Your task to perform on an android device: turn vacation reply on in the gmail app Image 0: 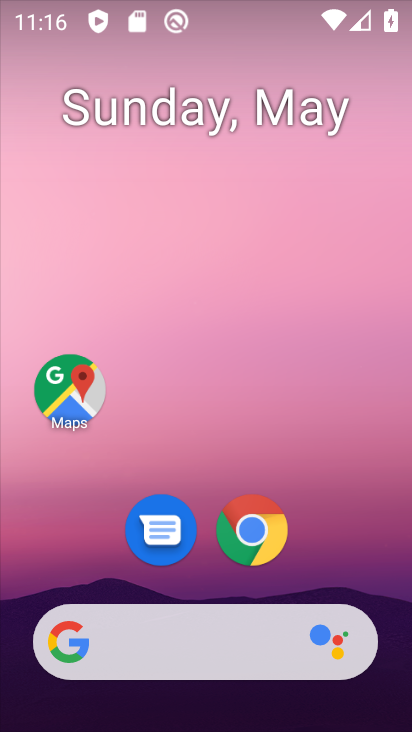
Step 0: drag from (287, 409) to (276, 23)
Your task to perform on an android device: turn vacation reply on in the gmail app Image 1: 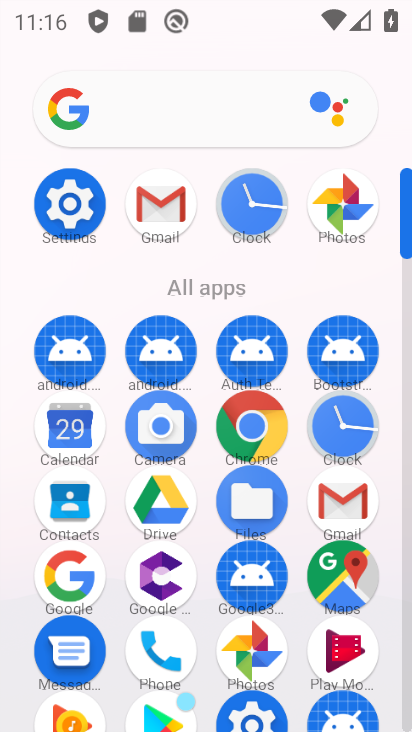
Step 1: click (165, 214)
Your task to perform on an android device: turn vacation reply on in the gmail app Image 2: 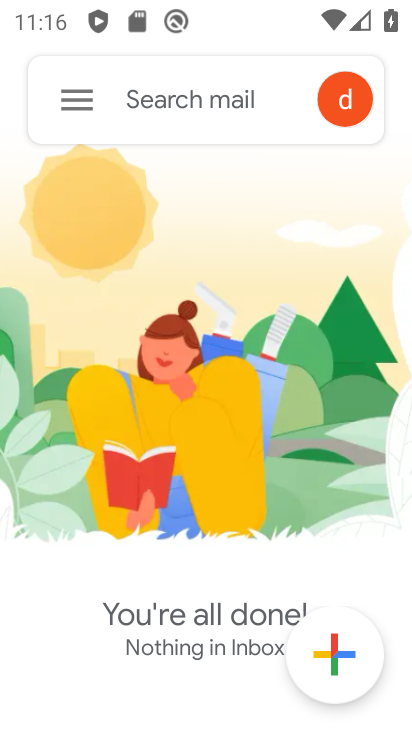
Step 2: click (57, 101)
Your task to perform on an android device: turn vacation reply on in the gmail app Image 3: 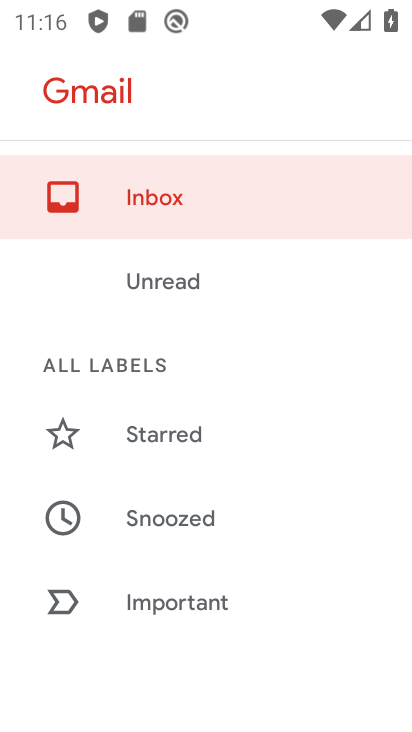
Step 3: drag from (143, 610) to (272, 1)
Your task to perform on an android device: turn vacation reply on in the gmail app Image 4: 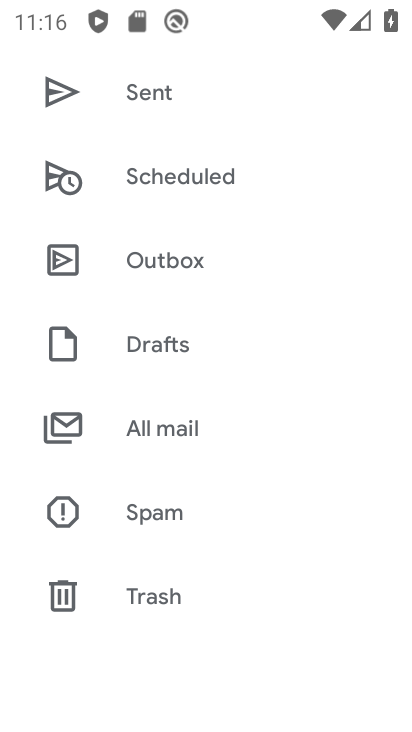
Step 4: drag from (173, 552) to (252, 13)
Your task to perform on an android device: turn vacation reply on in the gmail app Image 5: 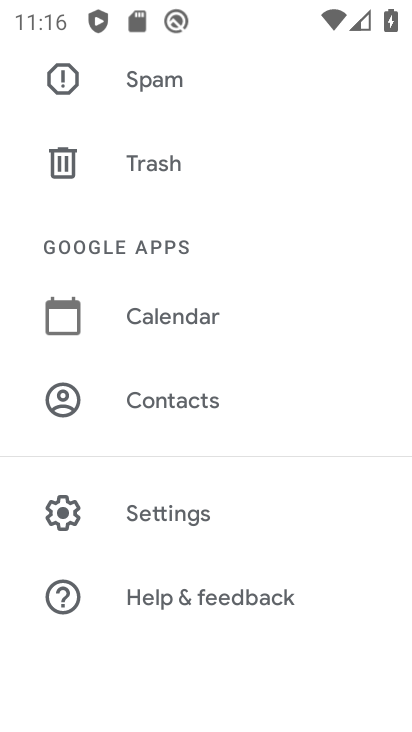
Step 5: click (166, 516)
Your task to perform on an android device: turn vacation reply on in the gmail app Image 6: 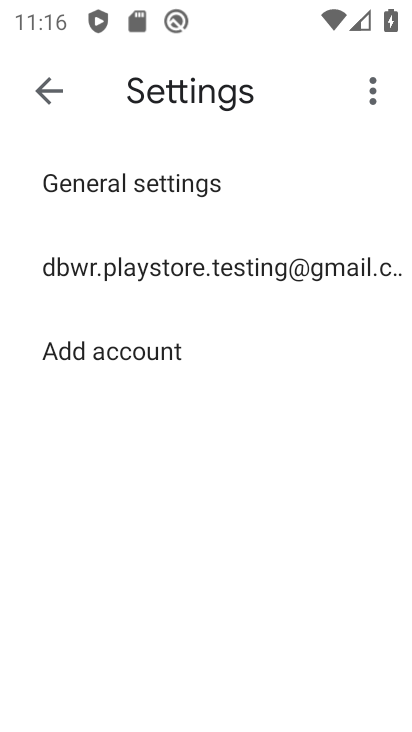
Step 6: click (145, 263)
Your task to perform on an android device: turn vacation reply on in the gmail app Image 7: 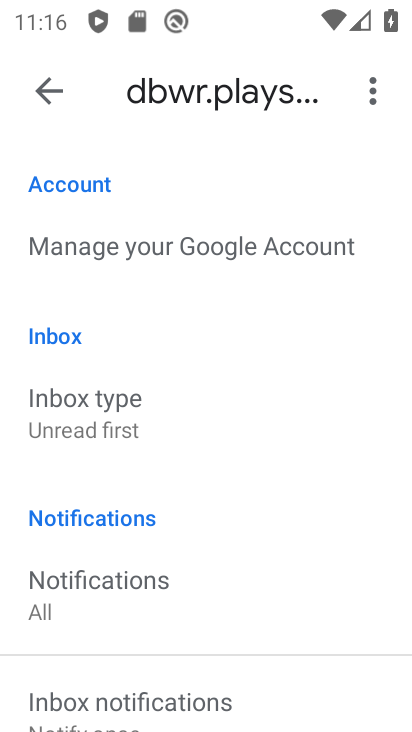
Step 7: drag from (155, 674) to (294, 100)
Your task to perform on an android device: turn vacation reply on in the gmail app Image 8: 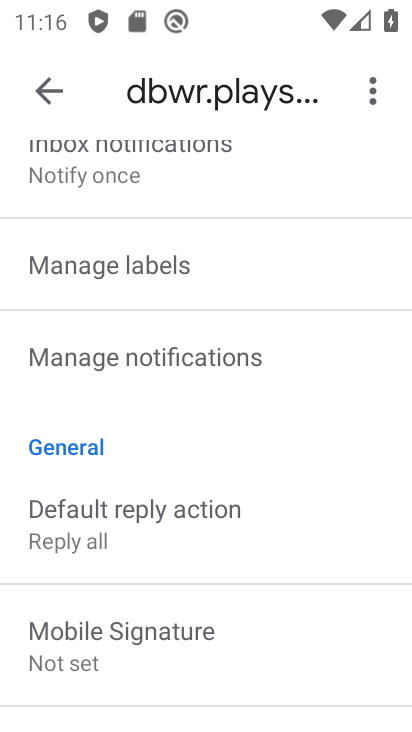
Step 8: drag from (198, 556) to (258, 141)
Your task to perform on an android device: turn vacation reply on in the gmail app Image 9: 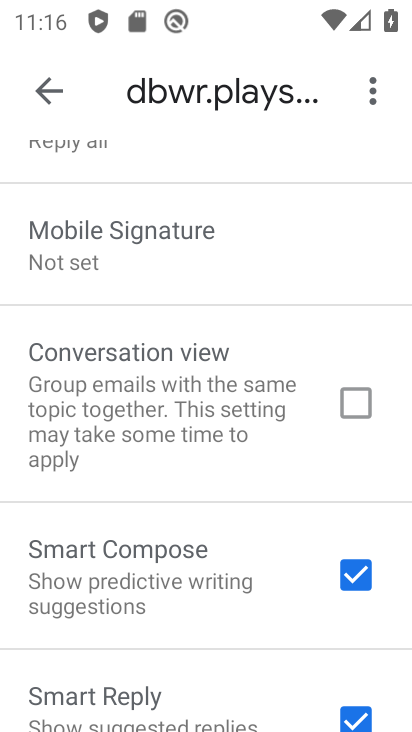
Step 9: drag from (184, 621) to (241, 221)
Your task to perform on an android device: turn vacation reply on in the gmail app Image 10: 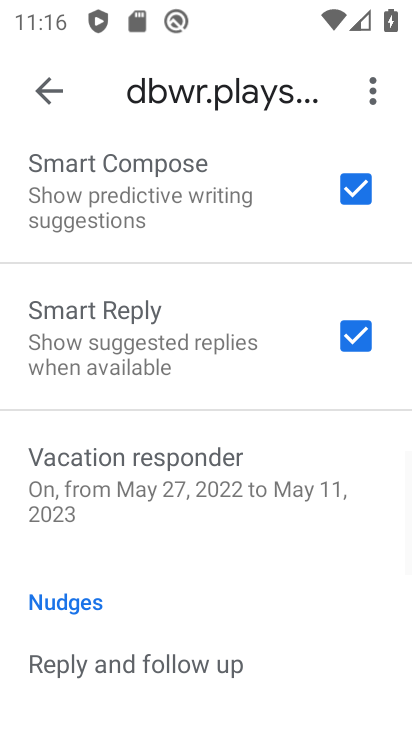
Step 10: click (139, 484)
Your task to perform on an android device: turn vacation reply on in the gmail app Image 11: 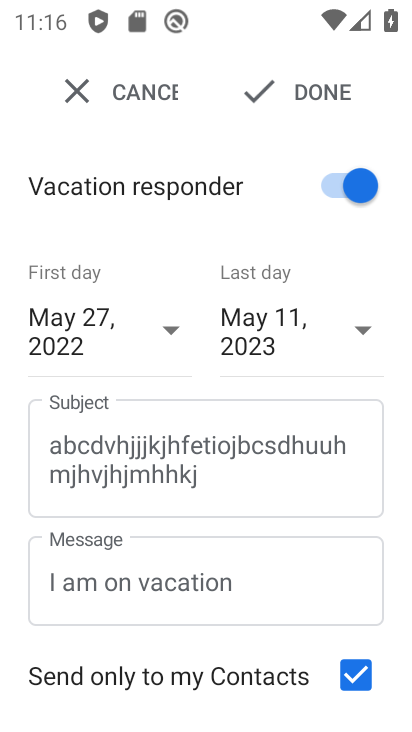
Step 11: task complete